Your task to perform on an android device: open app "Roku - Official Remote Control" (install if not already installed) Image 0: 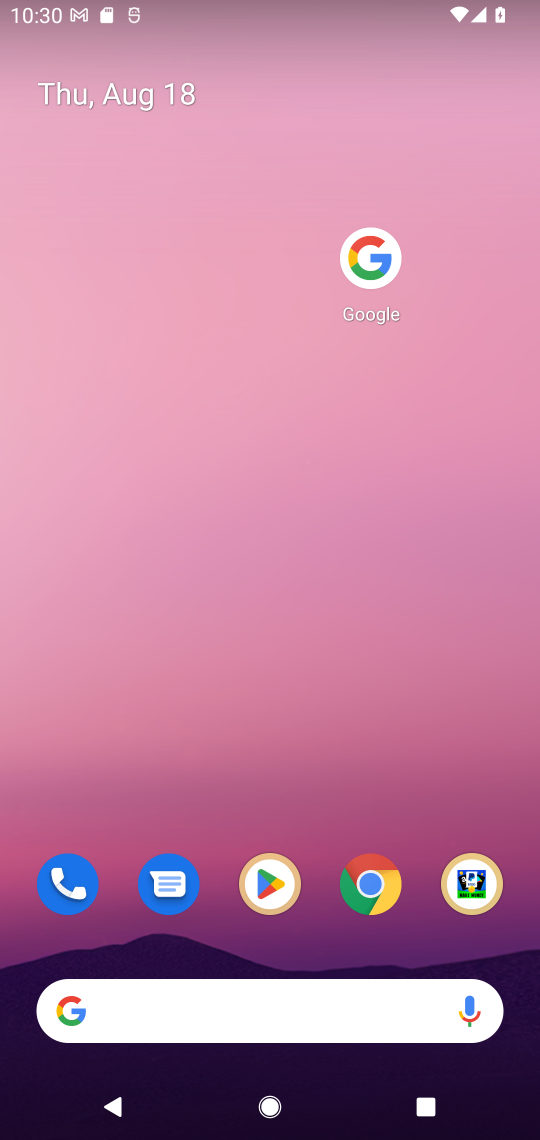
Step 0: click (257, 900)
Your task to perform on an android device: open app "Roku - Official Remote Control" (install if not already installed) Image 1: 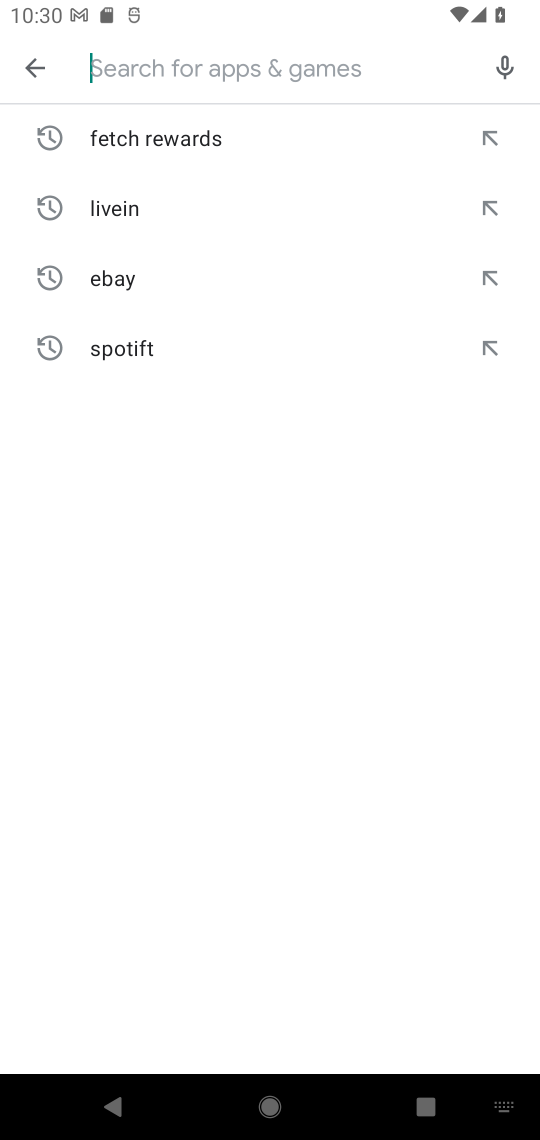
Step 1: type "roku"
Your task to perform on an android device: open app "Roku - Official Remote Control" (install if not already installed) Image 2: 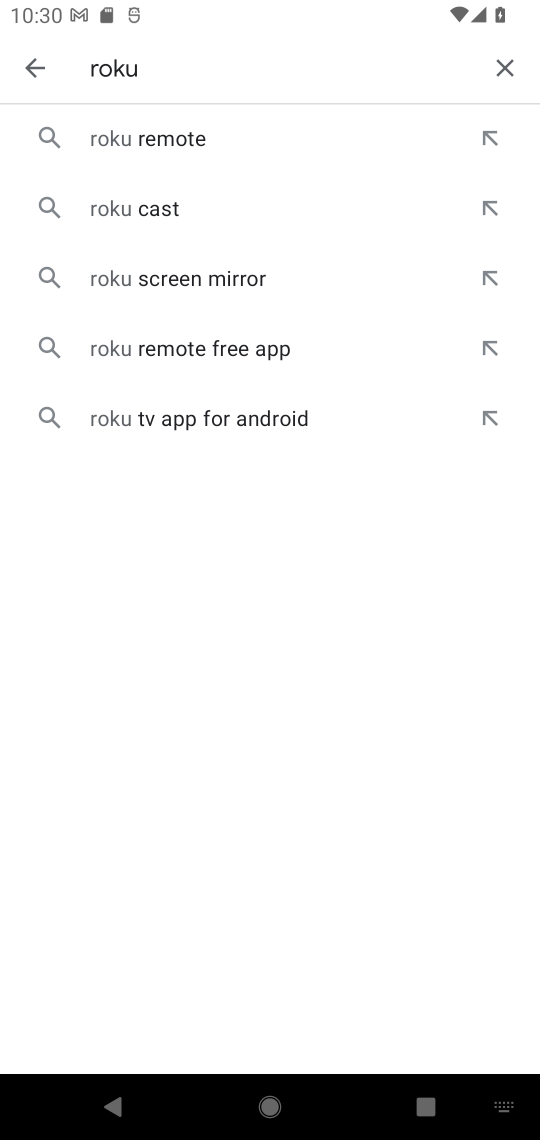
Step 2: click (198, 160)
Your task to perform on an android device: open app "Roku - Official Remote Control" (install if not already installed) Image 3: 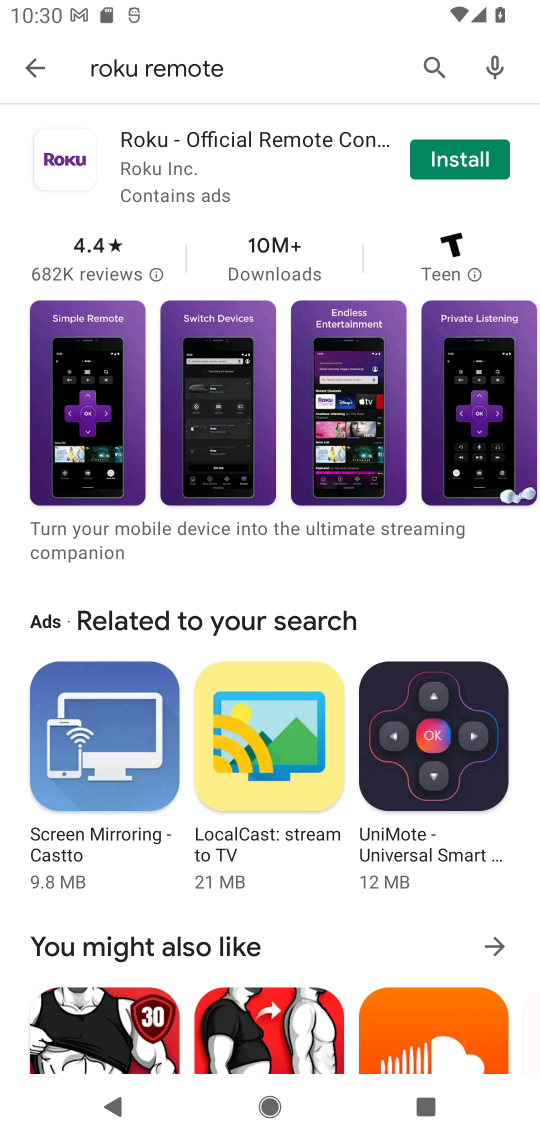
Step 3: click (449, 176)
Your task to perform on an android device: open app "Roku - Official Remote Control" (install if not already installed) Image 4: 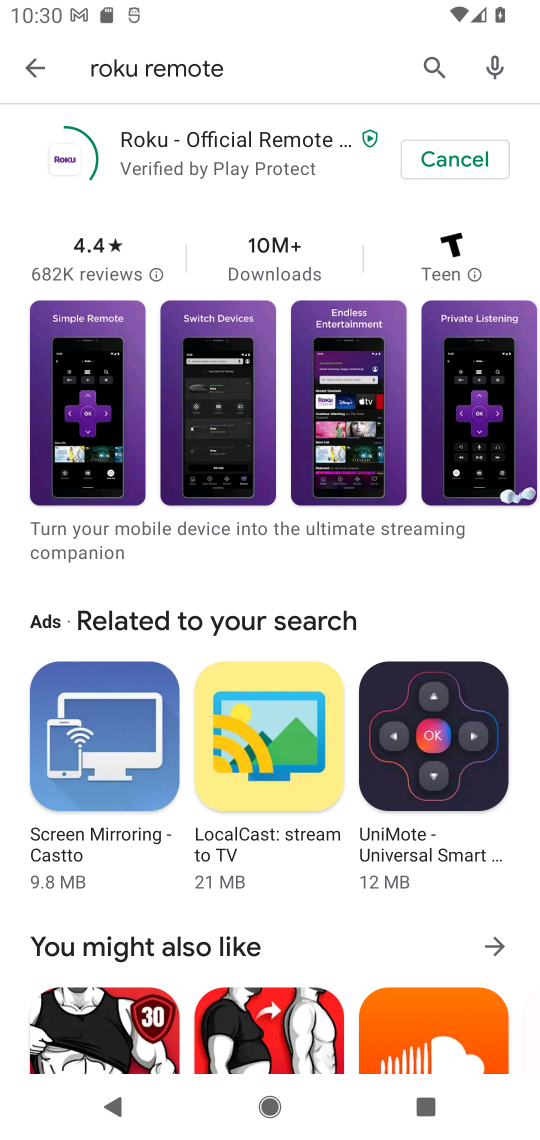
Step 4: task complete